Your task to perform on an android device: turn on the 12-hour format for clock Image 0: 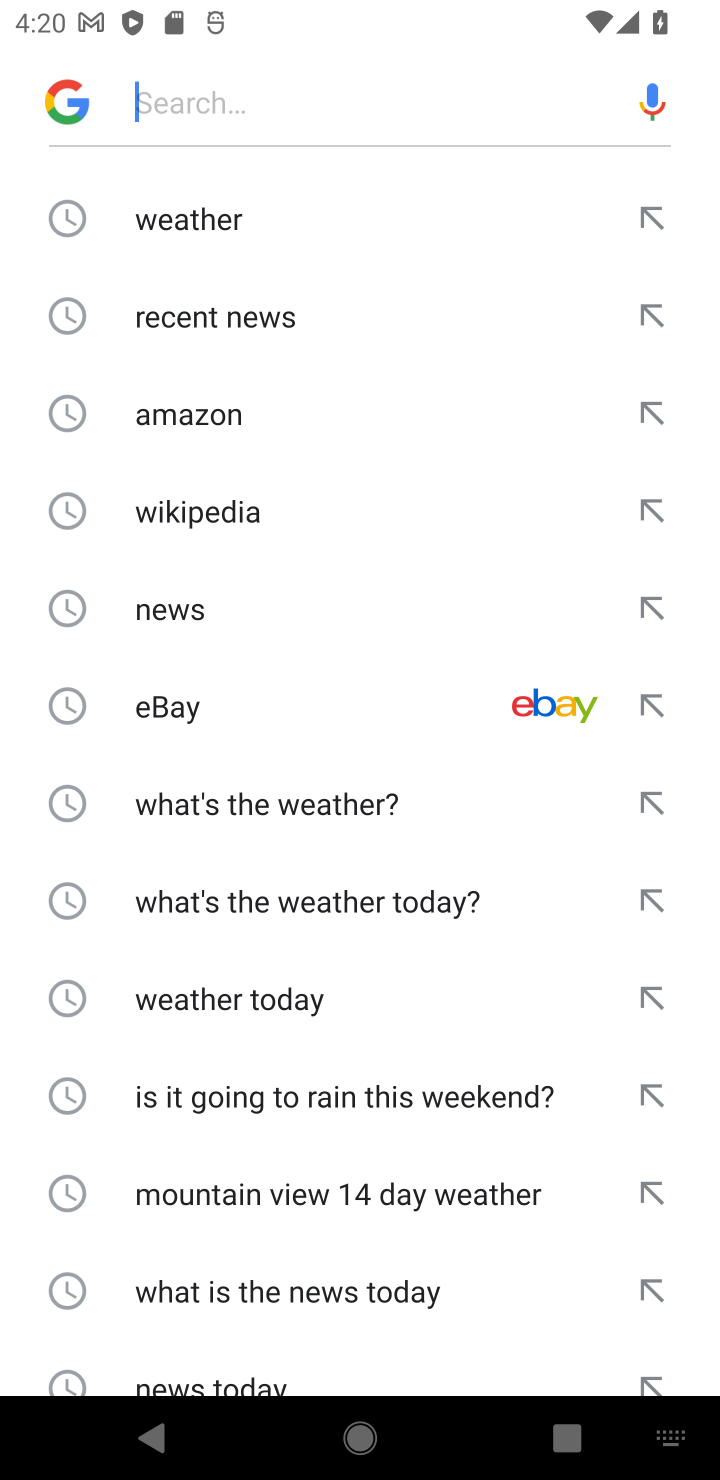
Step 0: press home button
Your task to perform on an android device: turn on the 12-hour format for clock Image 1: 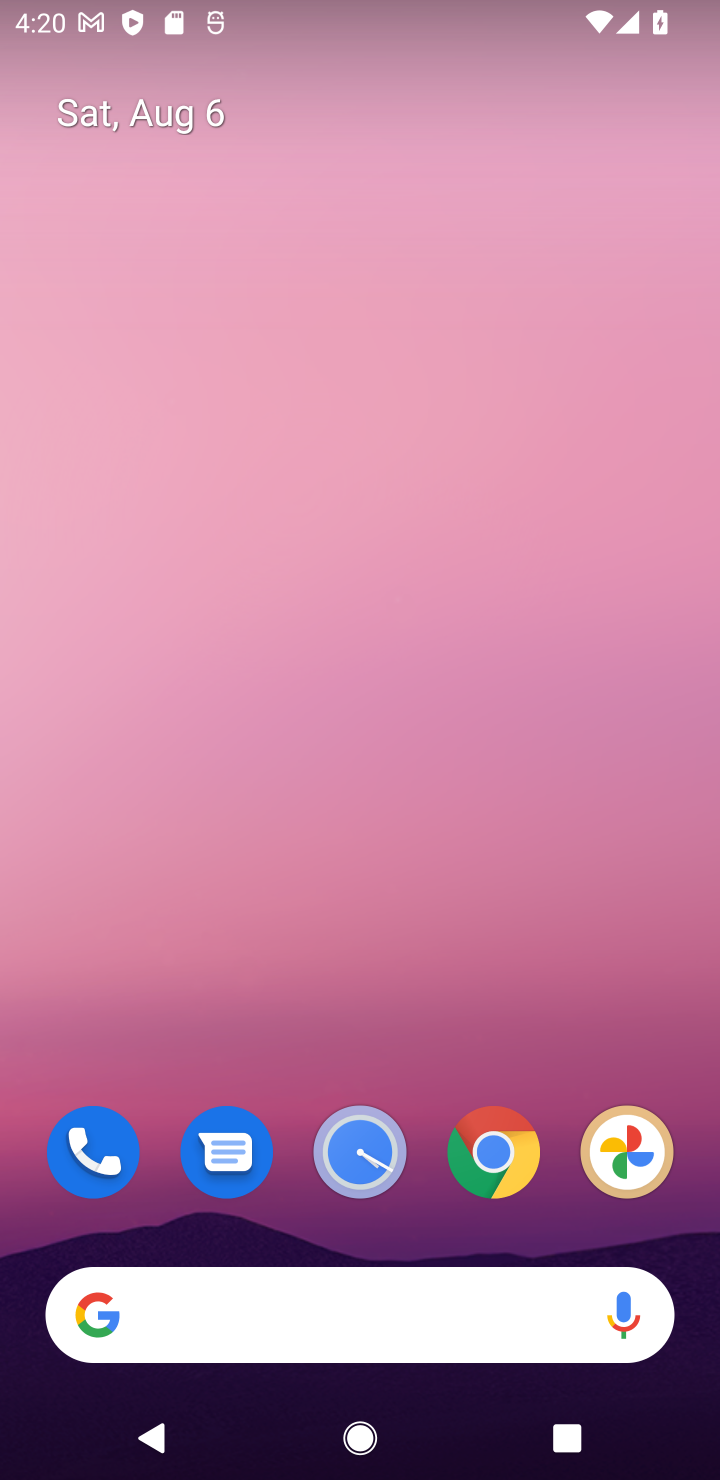
Step 1: drag from (504, 666) to (486, 240)
Your task to perform on an android device: turn on the 12-hour format for clock Image 2: 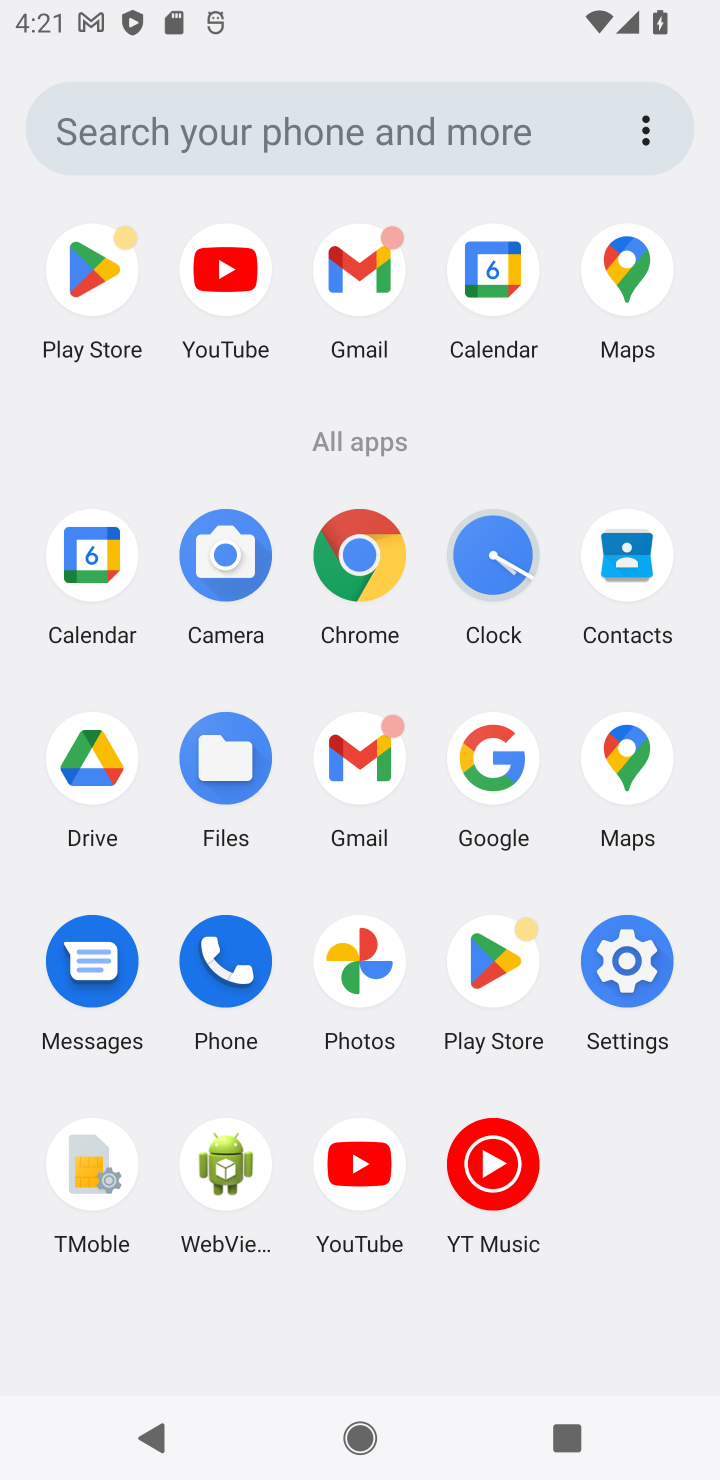
Step 2: click (498, 540)
Your task to perform on an android device: turn on the 12-hour format for clock Image 3: 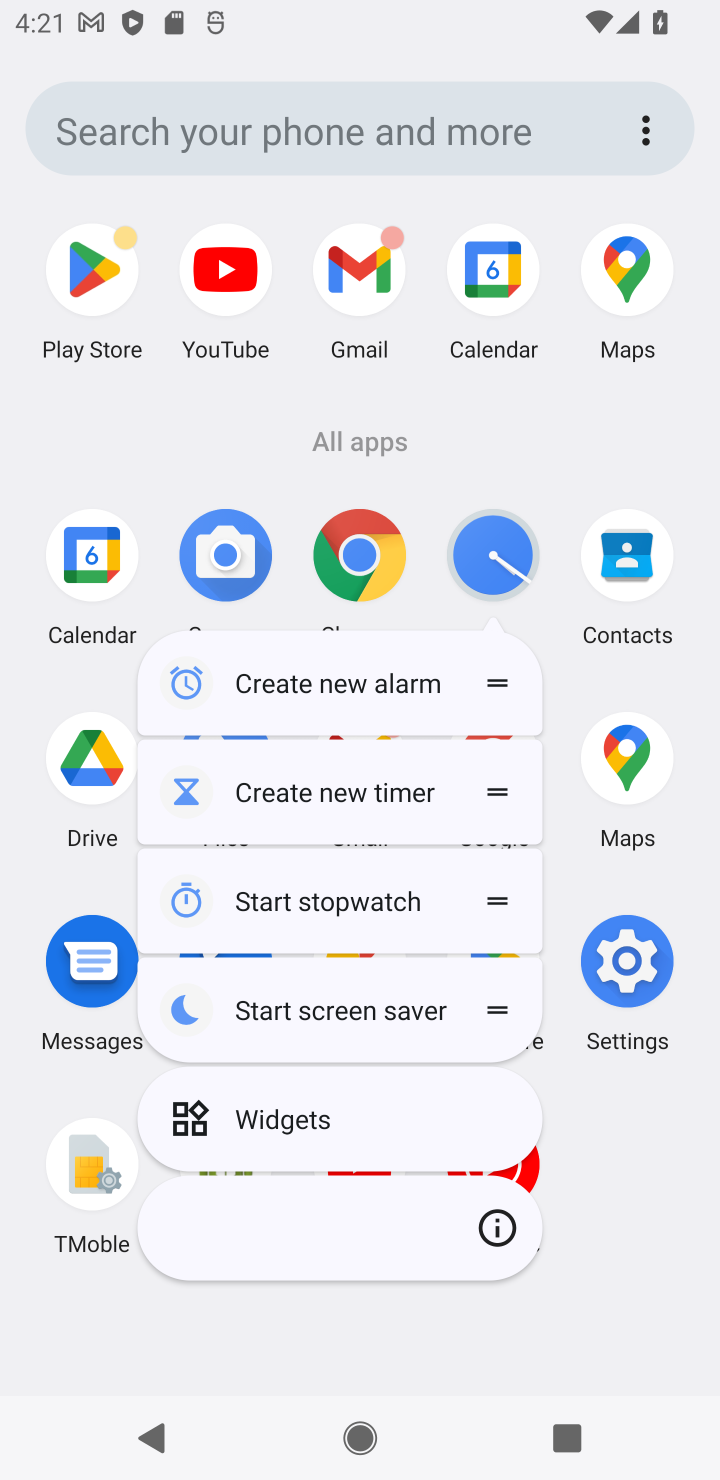
Step 3: click (498, 545)
Your task to perform on an android device: turn on the 12-hour format for clock Image 4: 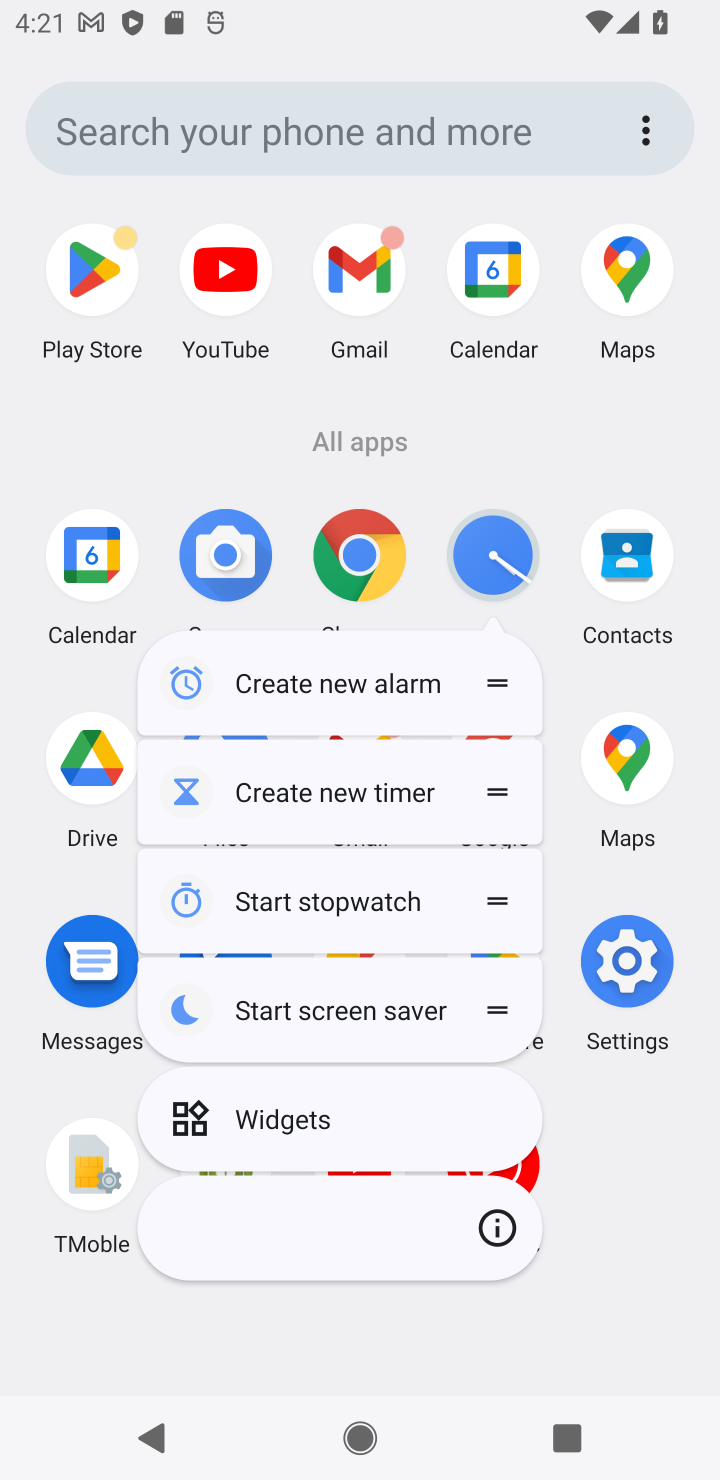
Step 4: click (496, 558)
Your task to perform on an android device: turn on the 12-hour format for clock Image 5: 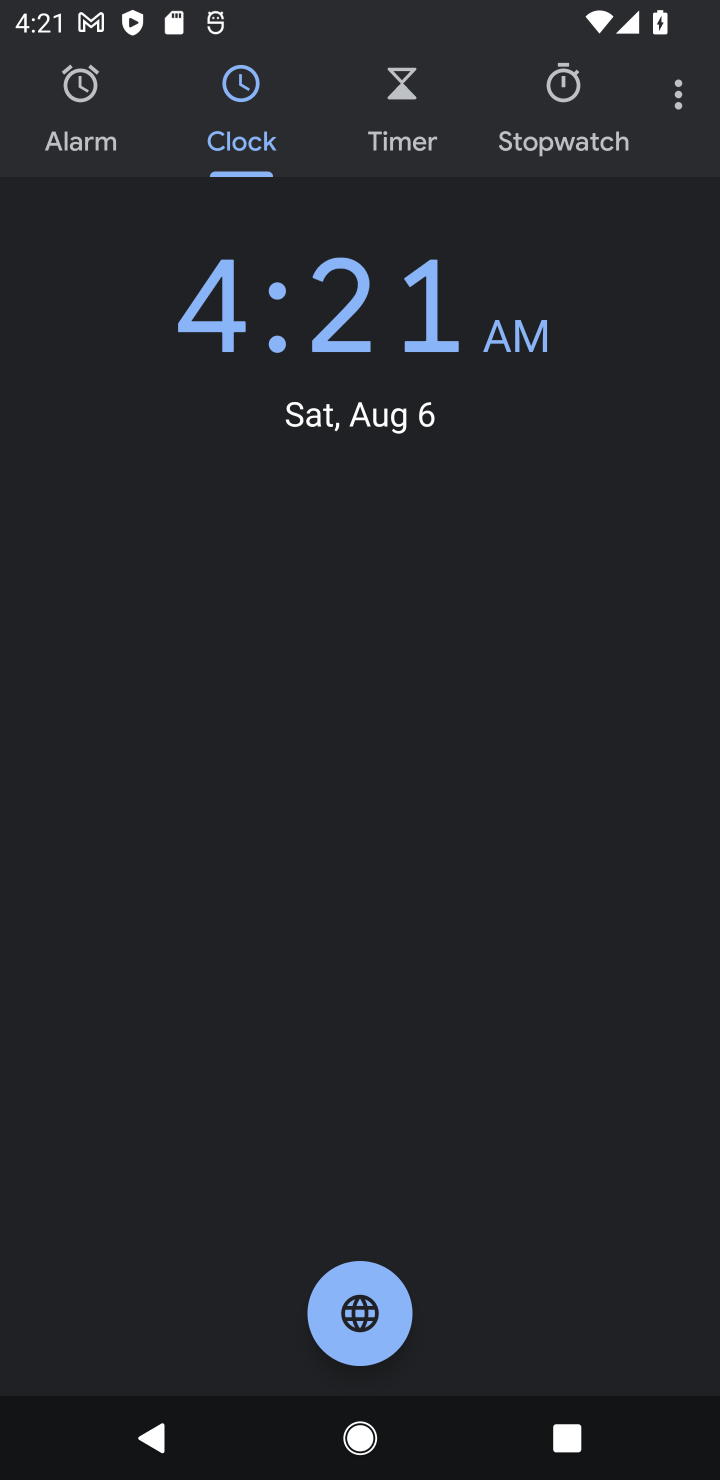
Step 5: click (688, 116)
Your task to perform on an android device: turn on the 12-hour format for clock Image 6: 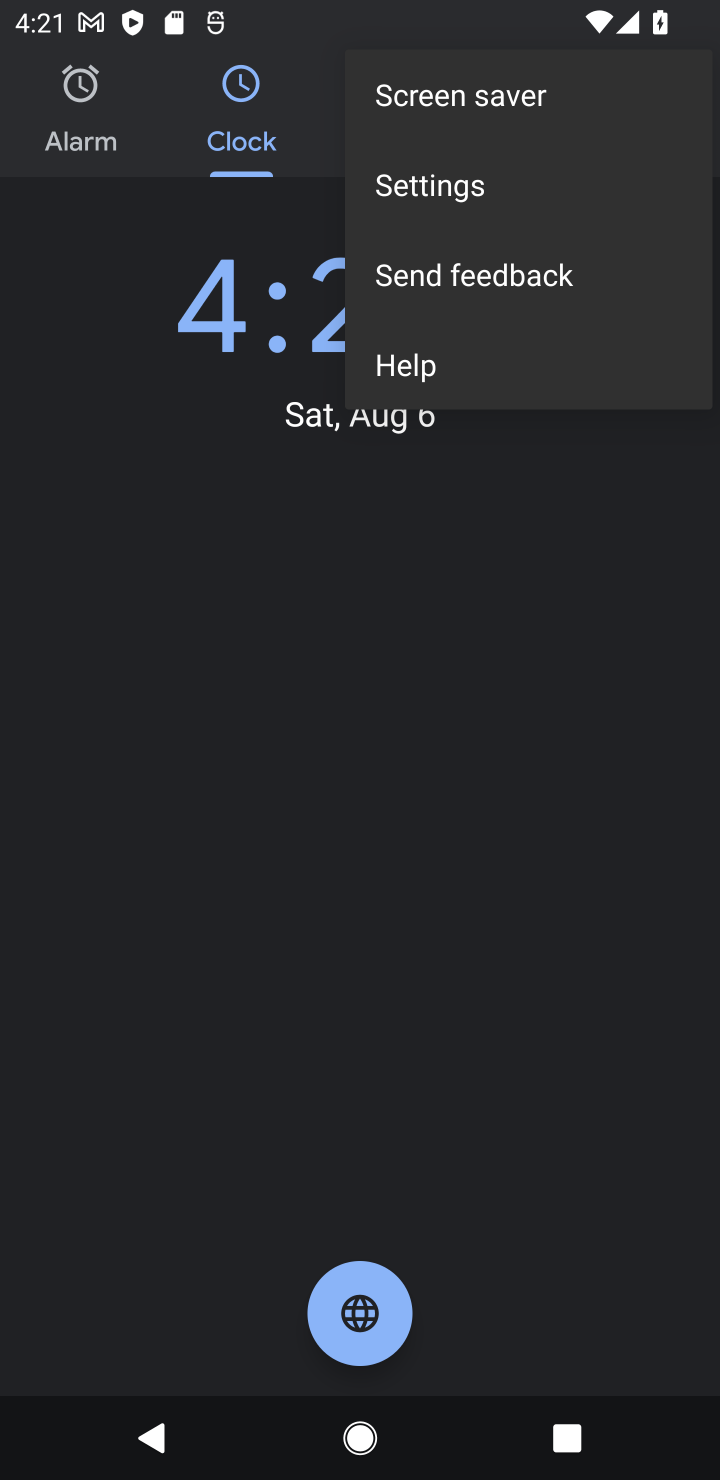
Step 6: click (463, 228)
Your task to perform on an android device: turn on the 12-hour format for clock Image 7: 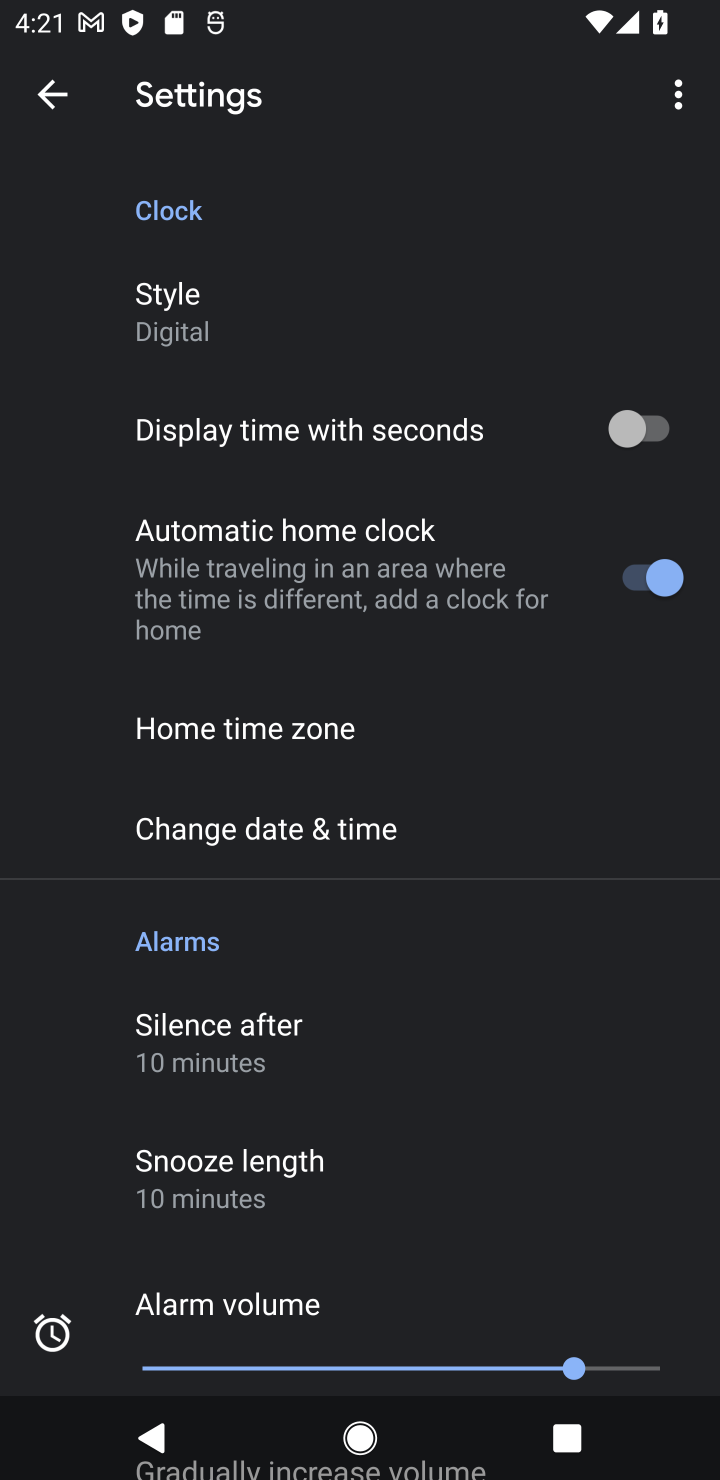
Step 7: click (385, 836)
Your task to perform on an android device: turn on the 12-hour format for clock Image 8: 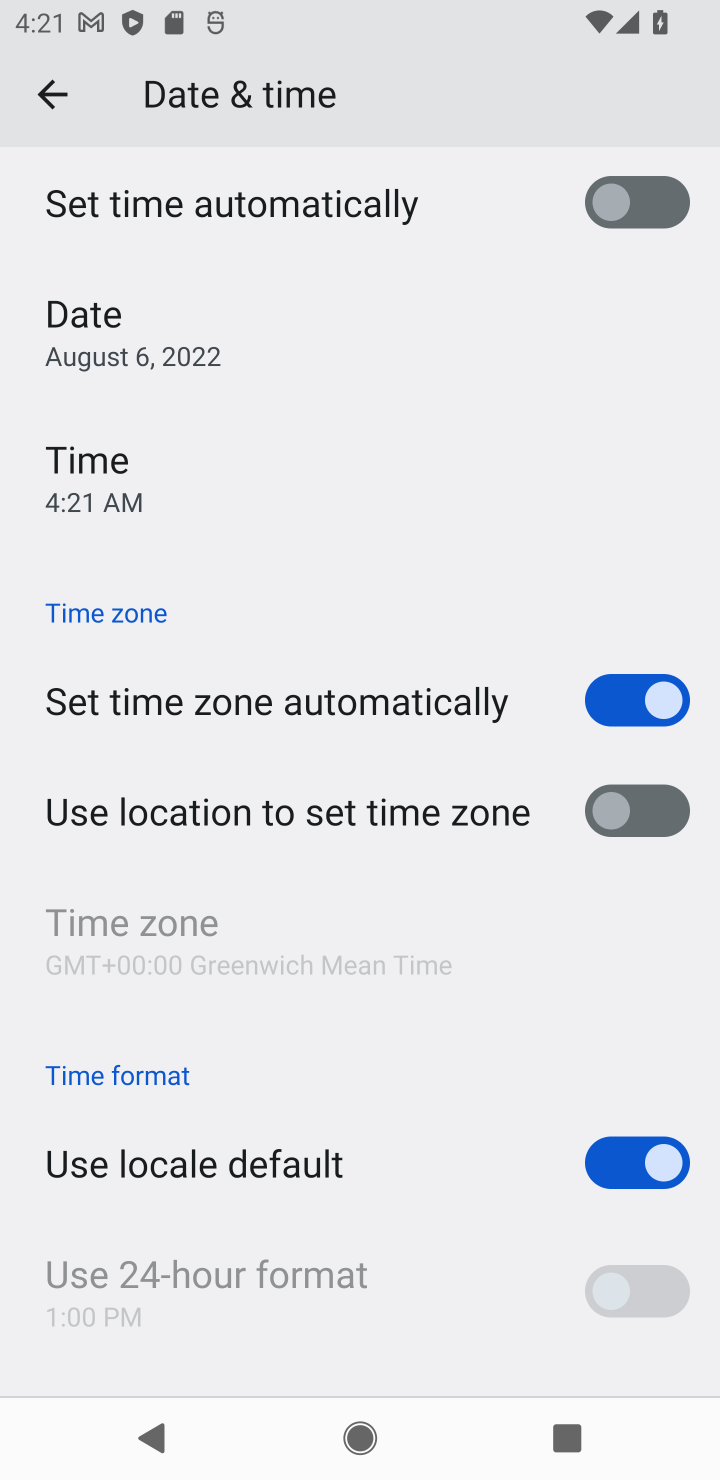
Step 8: task complete